Your task to perform on an android device: toggle data saver in the chrome app Image 0: 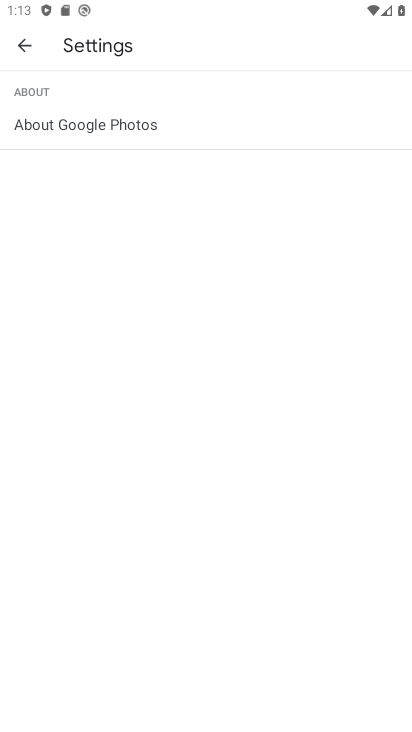
Step 0: press home button
Your task to perform on an android device: toggle data saver in the chrome app Image 1: 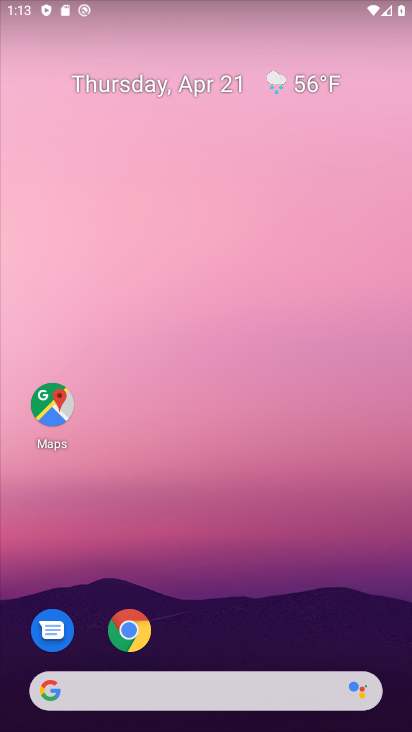
Step 1: click (141, 625)
Your task to perform on an android device: toggle data saver in the chrome app Image 2: 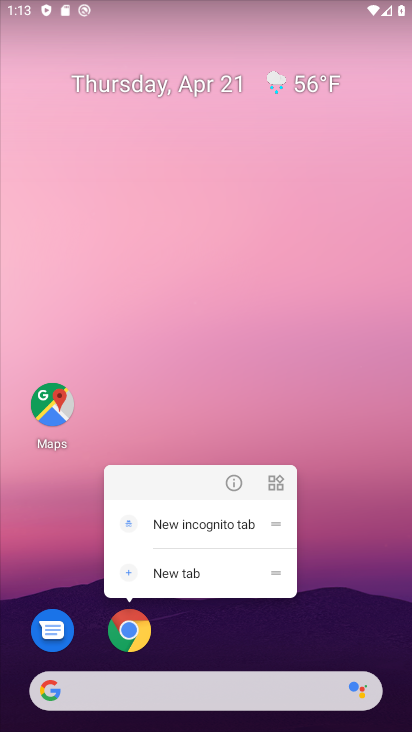
Step 2: click (137, 626)
Your task to perform on an android device: toggle data saver in the chrome app Image 3: 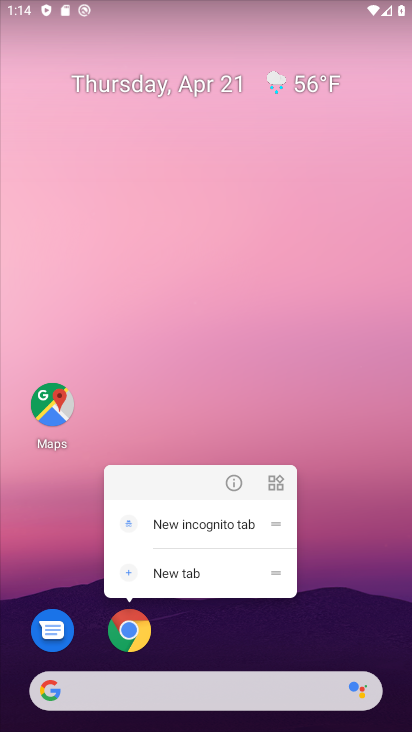
Step 3: click (137, 626)
Your task to perform on an android device: toggle data saver in the chrome app Image 4: 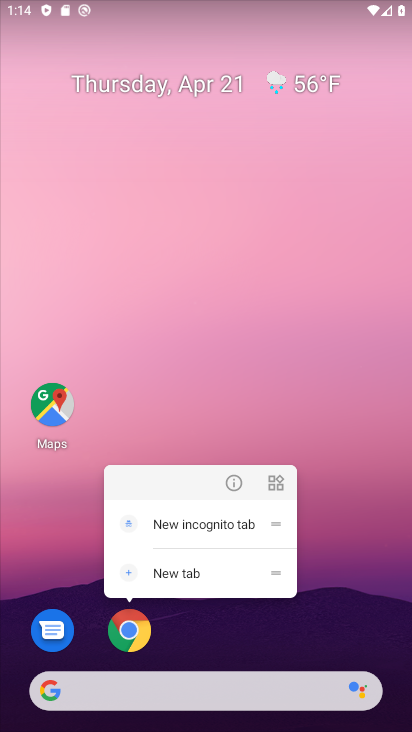
Step 4: click (137, 626)
Your task to perform on an android device: toggle data saver in the chrome app Image 5: 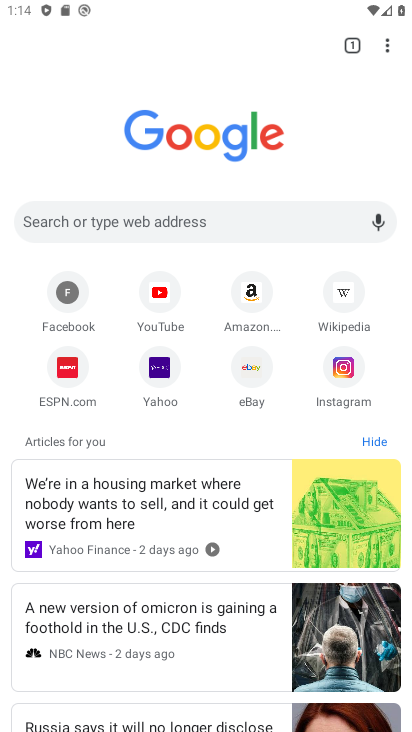
Step 5: drag from (392, 50) to (237, 444)
Your task to perform on an android device: toggle data saver in the chrome app Image 6: 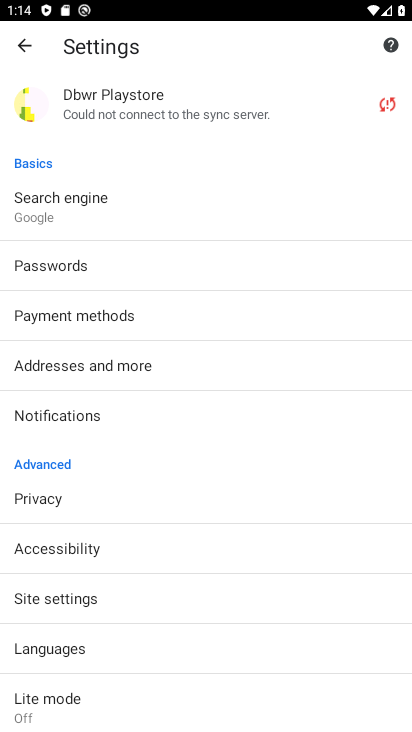
Step 6: click (79, 694)
Your task to perform on an android device: toggle data saver in the chrome app Image 7: 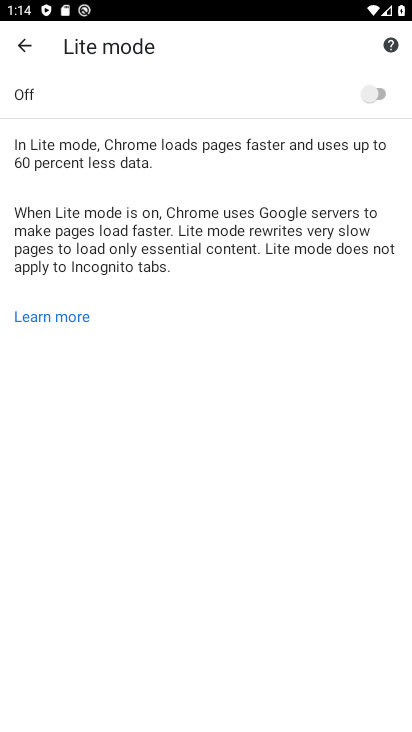
Step 7: click (375, 93)
Your task to perform on an android device: toggle data saver in the chrome app Image 8: 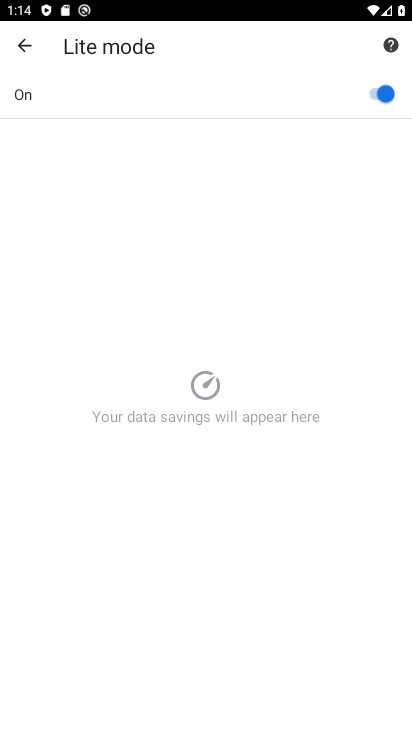
Step 8: task complete